Your task to perform on an android device: all mails in gmail Image 0: 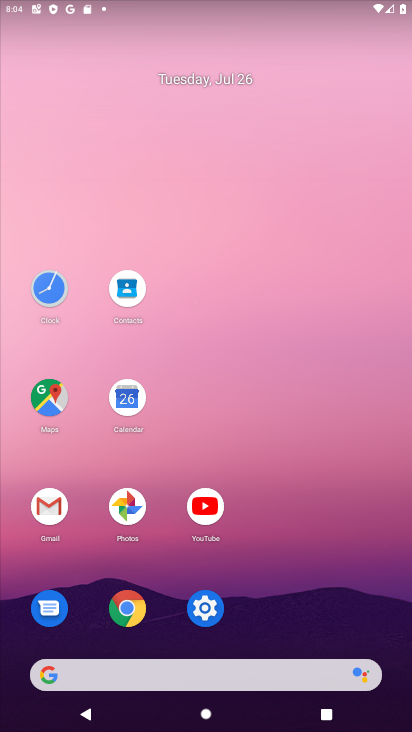
Step 0: click (46, 506)
Your task to perform on an android device: all mails in gmail Image 1: 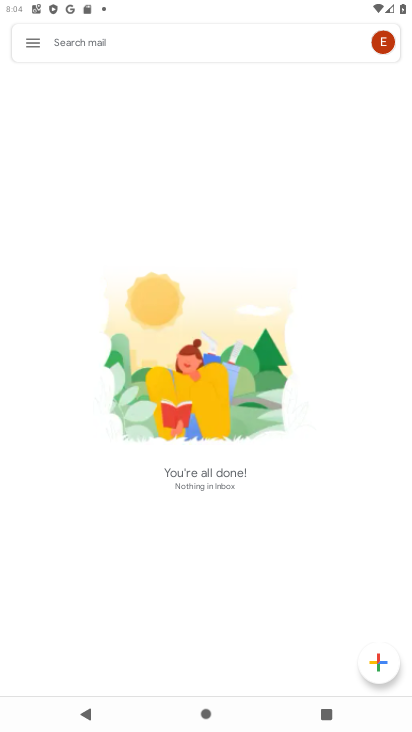
Step 1: click (31, 40)
Your task to perform on an android device: all mails in gmail Image 2: 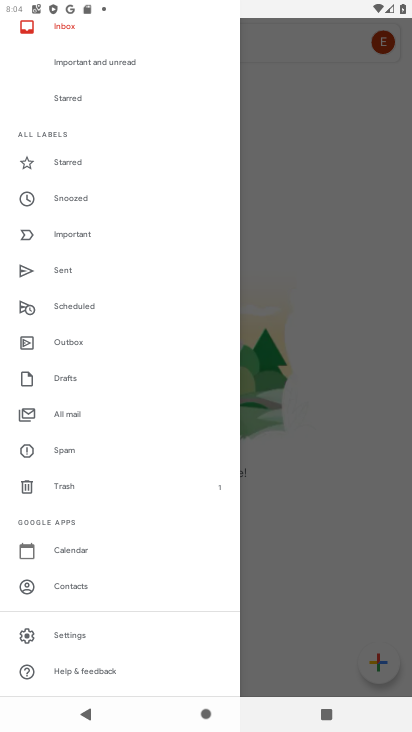
Step 2: click (65, 410)
Your task to perform on an android device: all mails in gmail Image 3: 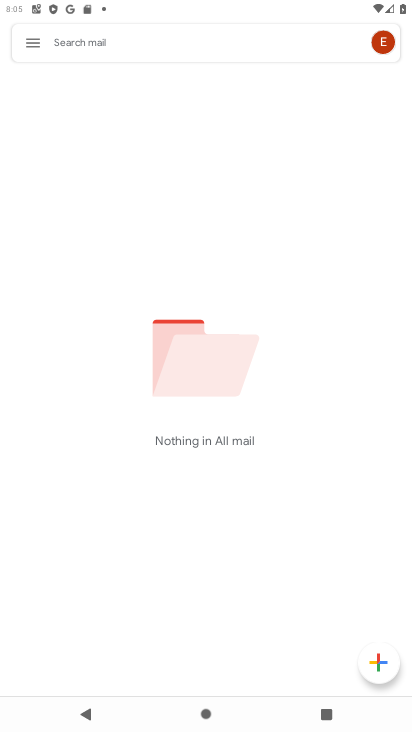
Step 3: task complete